Your task to perform on an android device: Go to display settings Image 0: 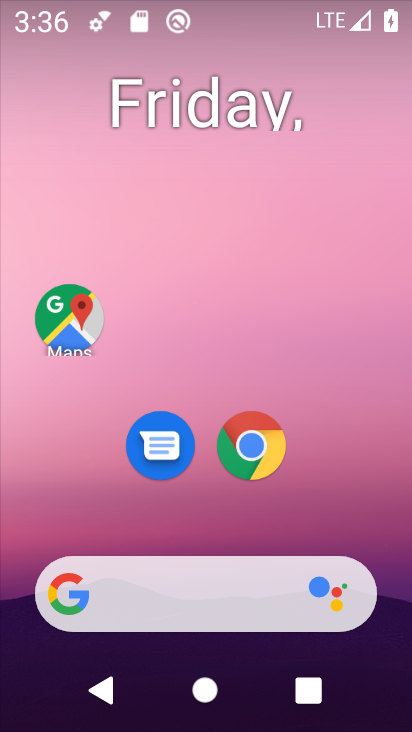
Step 0: drag from (395, 575) to (313, 128)
Your task to perform on an android device: Go to display settings Image 1: 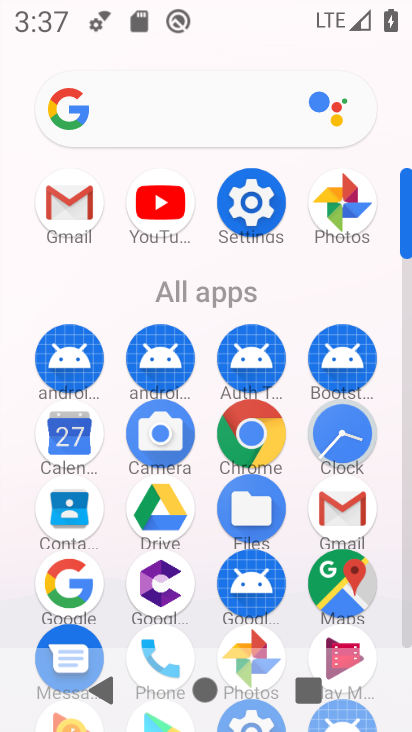
Step 1: click (257, 214)
Your task to perform on an android device: Go to display settings Image 2: 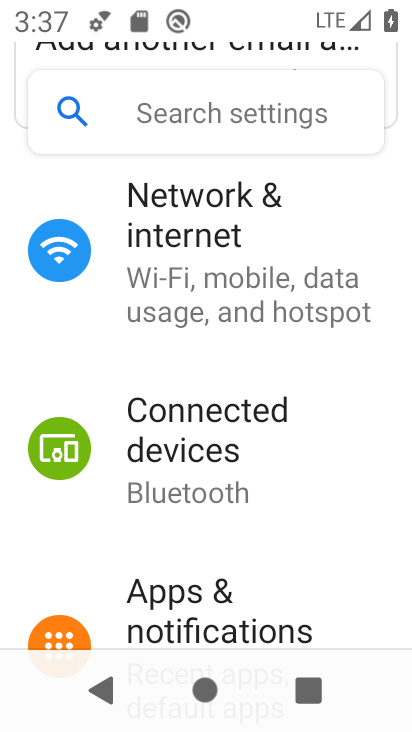
Step 2: drag from (296, 557) to (267, 339)
Your task to perform on an android device: Go to display settings Image 3: 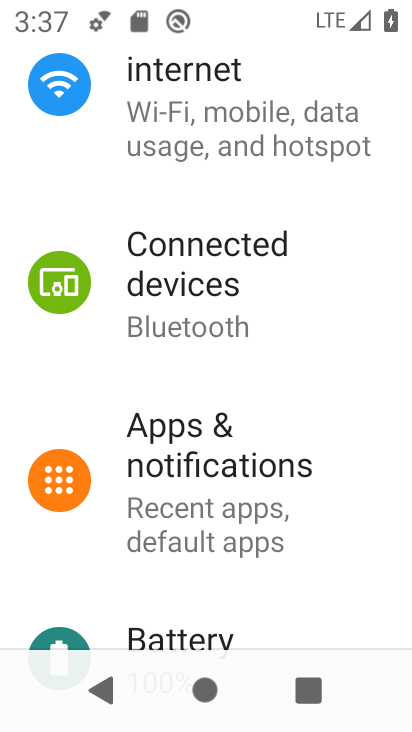
Step 3: drag from (305, 574) to (246, 292)
Your task to perform on an android device: Go to display settings Image 4: 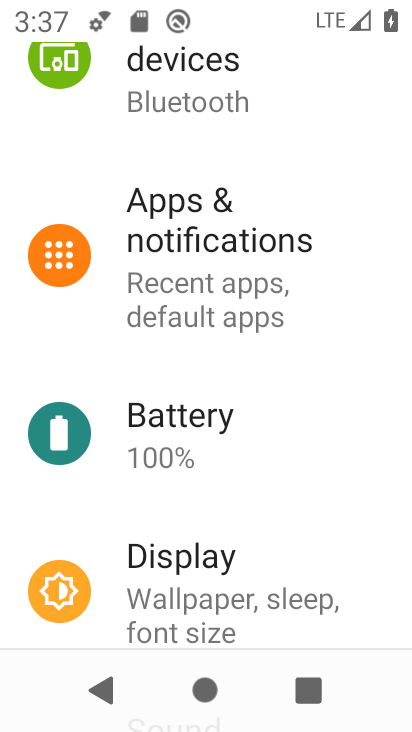
Step 4: click (241, 598)
Your task to perform on an android device: Go to display settings Image 5: 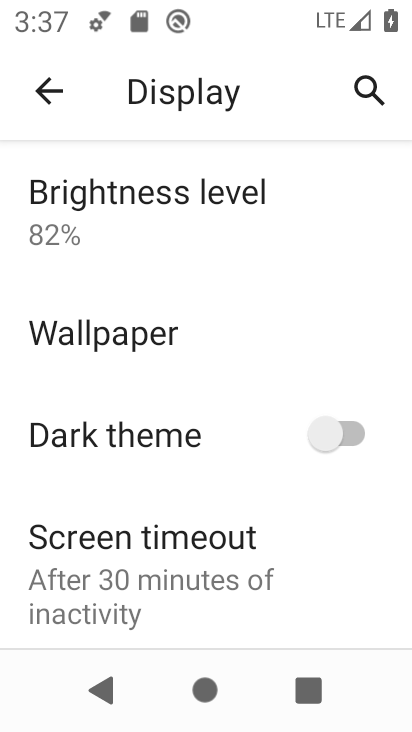
Step 5: task complete